Your task to perform on an android device: Open the calendar and show me this week's events? Image 0: 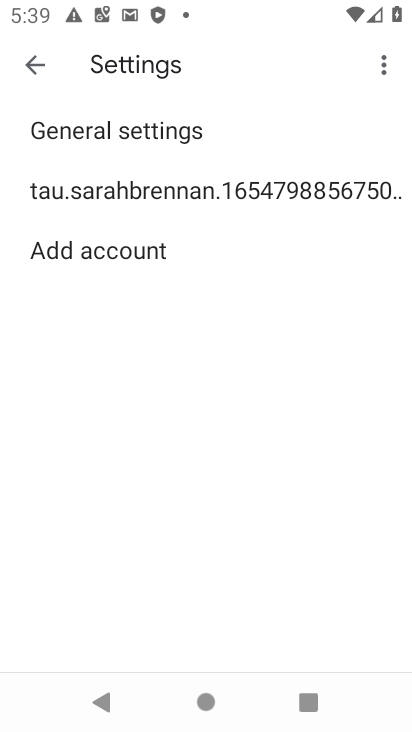
Step 0: press home button
Your task to perform on an android device: Open the calendar and show me this week's events? Image 1: 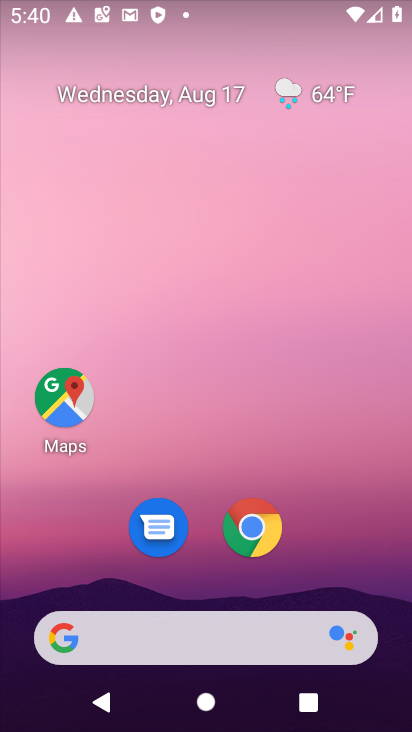
Step 1: drag from (143, 601) to (143, 257)
Your task to perform on an android device: Open the calendar and show me this week's events? Image 2: 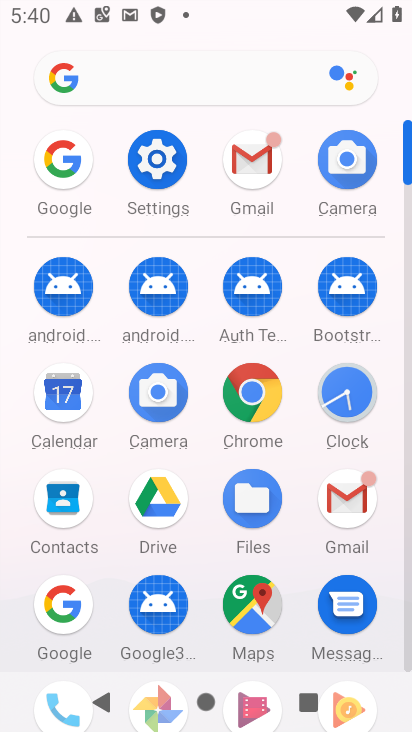
Step 2: click (58, 397)
Your task to perform on an android device: Open the calendar and show me this week's events? Image 3: 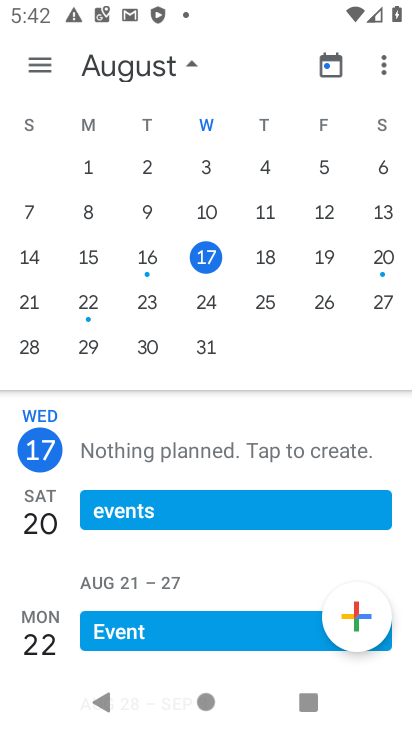
Step 3: click (274, 261)
Your task to perform on an android device: Open the calendar and show me this week's events? Image 4: 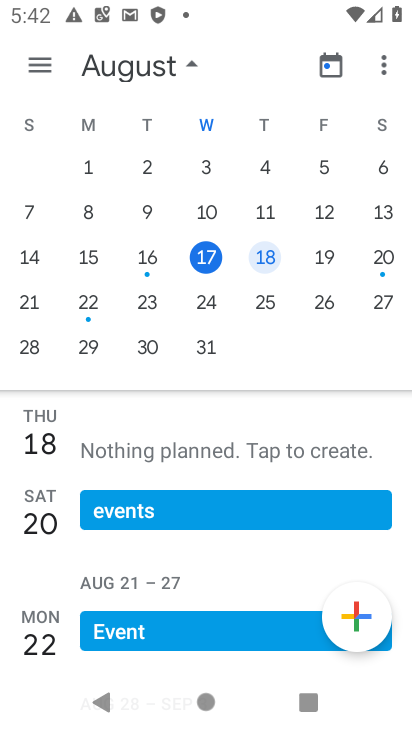
Step 4: click (326, 256)
Your task to perform on an android device: Open the calendar and show me this week's events? Image 5: 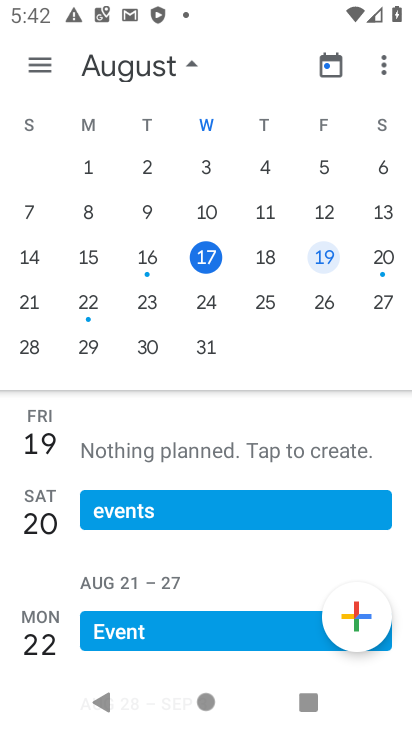
Step 5: task complete